Your task to perform on an android device: Open Yahoo.com Image 0: 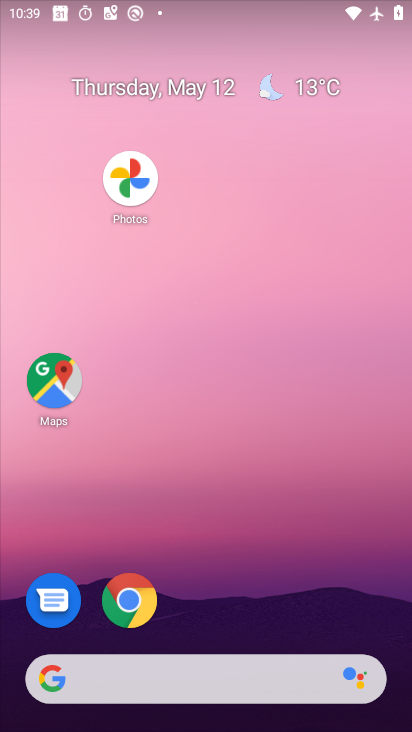
Step 0: drag from (225, 408) to (145, 128)
Your task to perform on an android device: Open Yahoo.com Image 1: 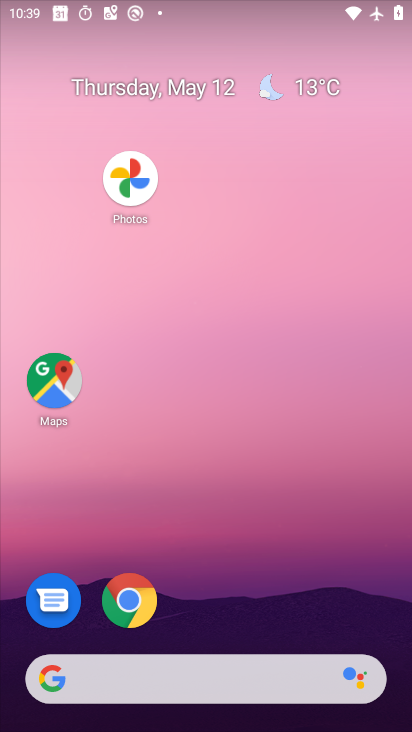
Step 1: drag from (262, 563) to (175, 7)
Your task to perform on an android device: Open Yahoo.com Image 2: 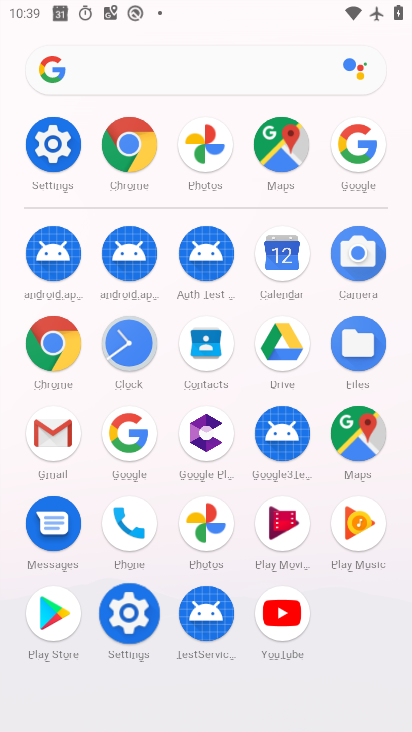
Step 2: click (132, 149)
Your task to perform on an android device: Open Yahoo.com Image 3: 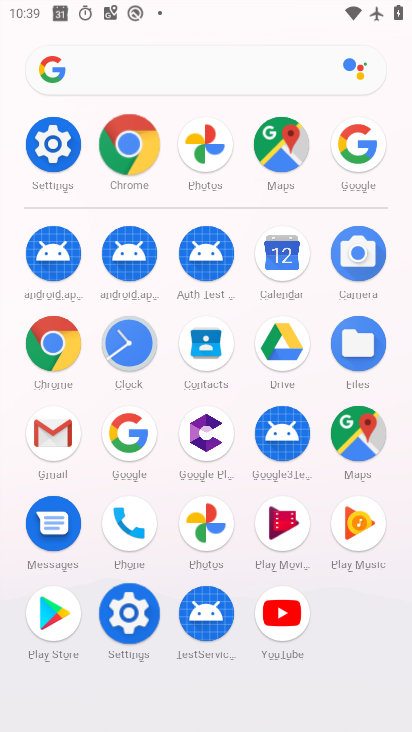
Step 3: click (132, 149)
Your task to perform on an android device: Open Yahoo.com Image 4: 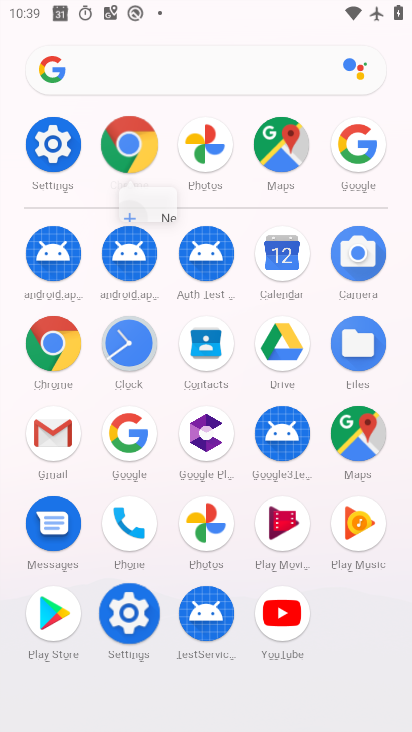
Step 4: click (132, 148)
Your task to perform on an android device: Open Yahoo.com Image 5: 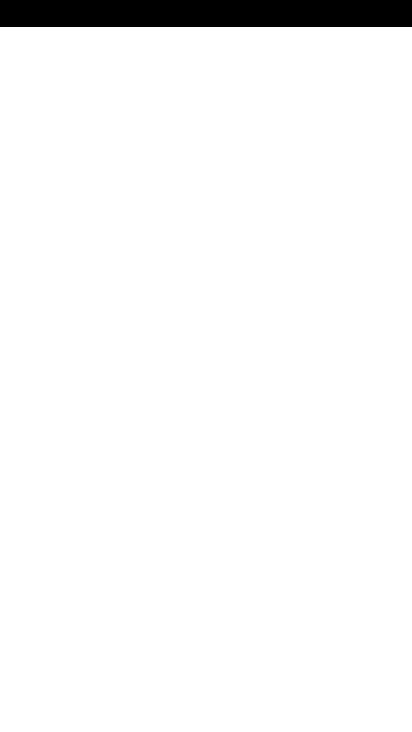
Step 5: click (132, 147)
Your task to perform on an android device: Open Yahoo.com Image 6: 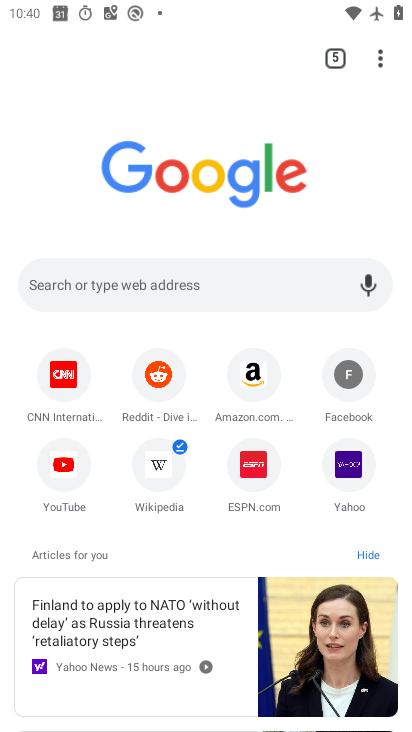
Step 6: click (348, 463)
Your task to perform on an android device: Open Yahoo.com Image 7: 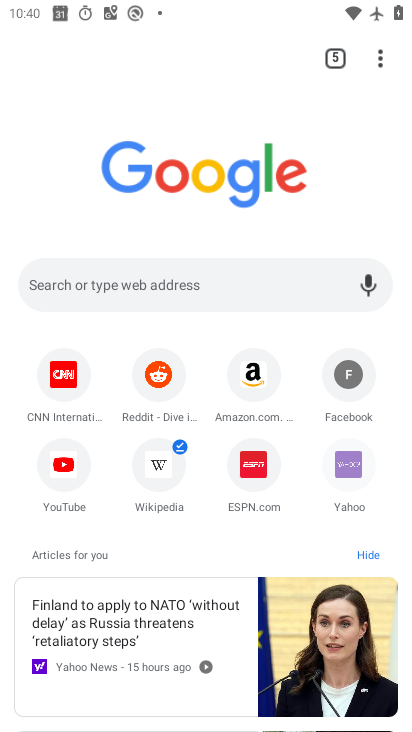
Step 7: click (349, 464)
Your task to perform on an android device: Open Yahoo.com Image 8: 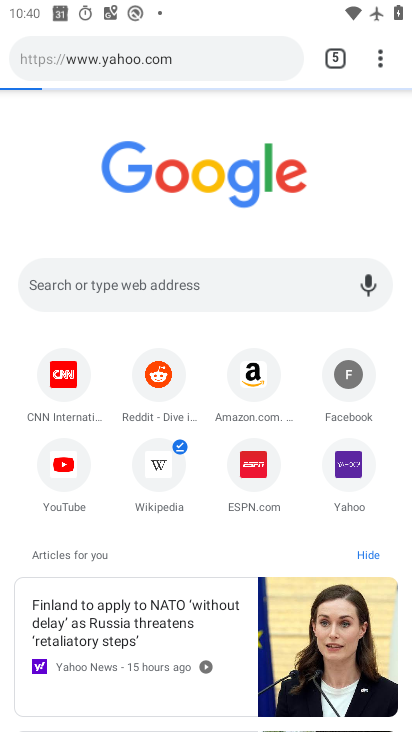
Step 8: click (350, 465)
Your task to perform on an android device: Open Yahoo.com Image 9: 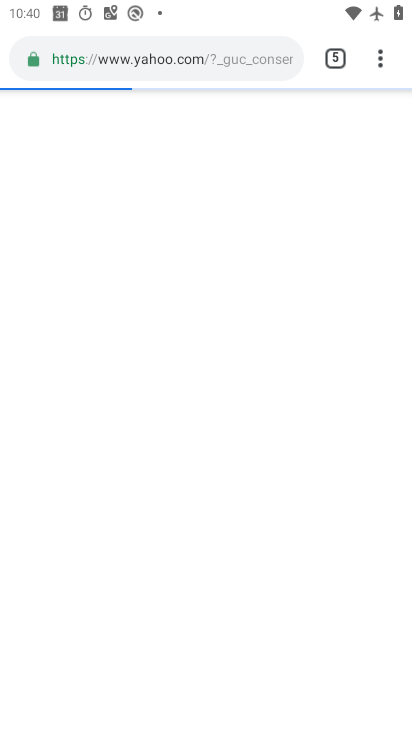
Step 9: click (350, 465)
Your task to perform on an android device: Open Yahoo.com Image 10: 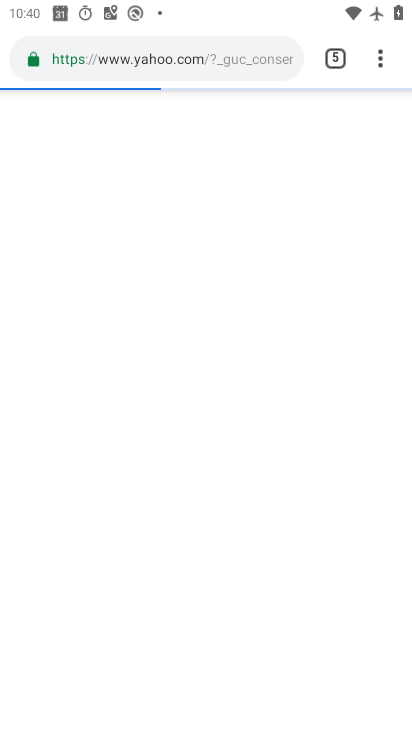
Step 10: click (350, 460)
Your task to perform on an android device: Open Yahoo.com Image 11: 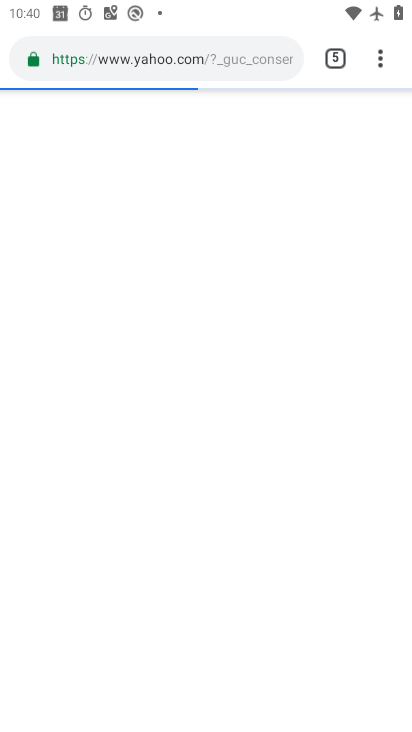
Step 11: click (345, 454)
Your task to perform on an android device: Open Yahoo.com Image 12: 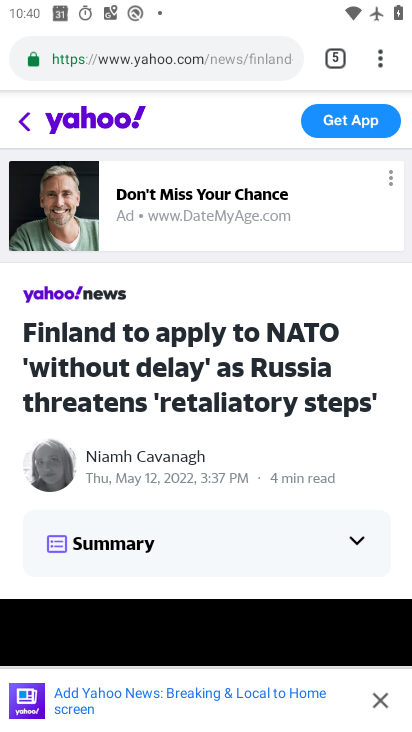
Step 12: task complete